Your task to perform on an android device: Search for custom wallets on etsy. Image 0: 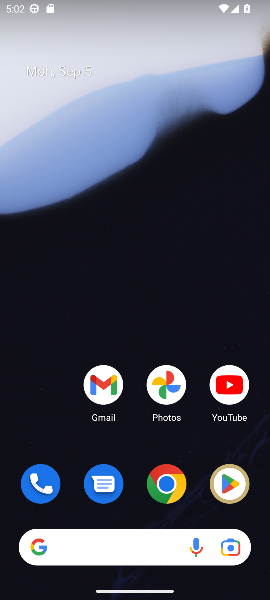
Step 0: click (170, 486)
Your task to perform on an android device: Search for custom wallets on etsy. Image 1: 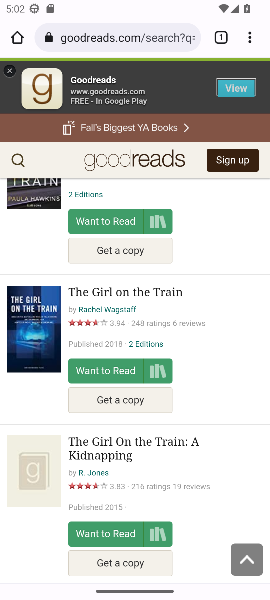
Step 1: click (146, 43)
Your task to perform on an android device: Search for custom wallets on etsy. Image 2: 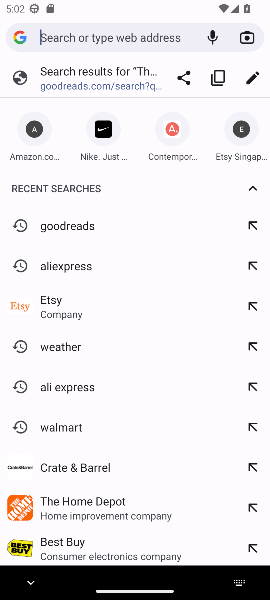
Step 2: type "etsy"
Your task to perform on an android device: Search for custom wallets on etsy. Image 3: 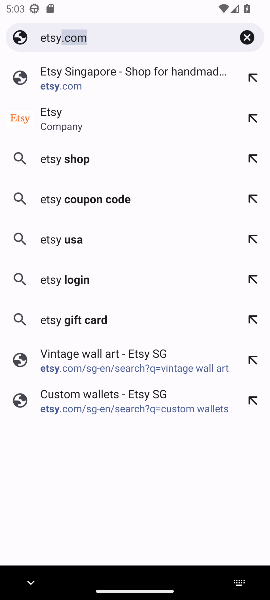
Step 3: click (60, 114)
Your task to perform on an android device: Search for custom wallets on etsy. Image 4: 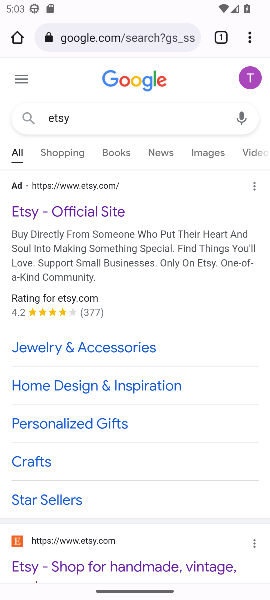
Step 4: click (100, 215)
Your task to perform on an android device: Search for custom wallets on etsy. Image 5: 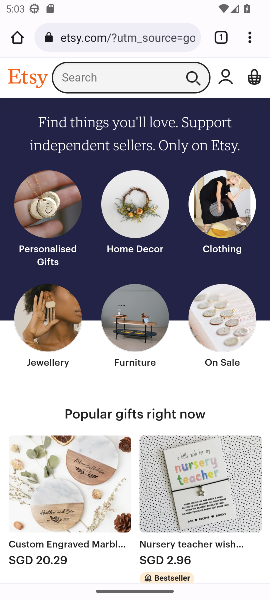
Step 5: click (140, 75)
Your task to perform on an android device: Search for custom wallets on etsy. Image 6: 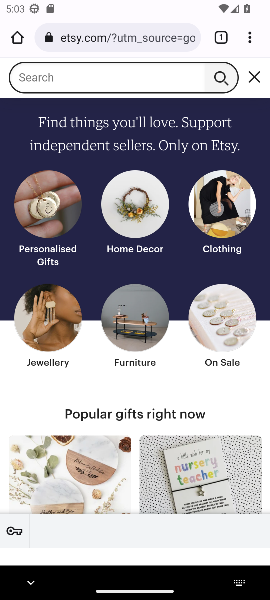
Step 6: type "custom wallets "
Your task to perform on an android device: Search for custom wallets on etsy. Image 7: 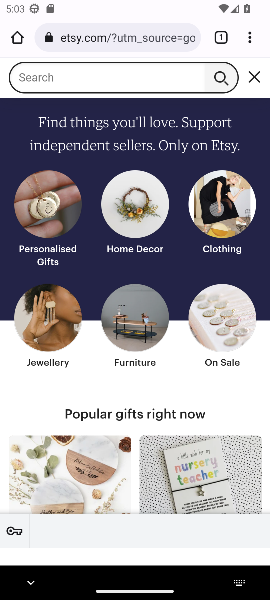
Step 7: press enter
Your task to perform on an android device: Search for custom wallets on etsy. Image 8: 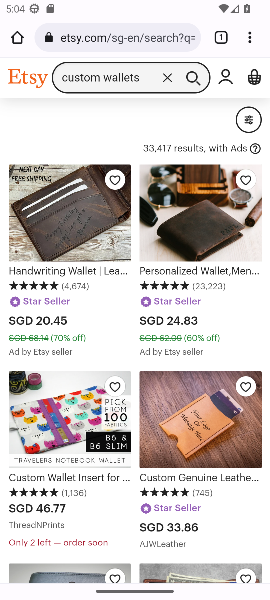
Step 8: task complete